Your task to perform on an android device: Open Chrome and go to settings Image 0: 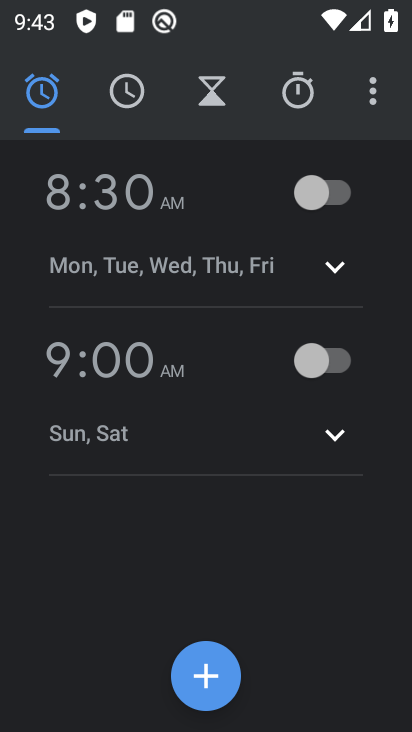
Step 0: press home button
Your task to perform on an android device: Open Chrome and go to settings Image 1: 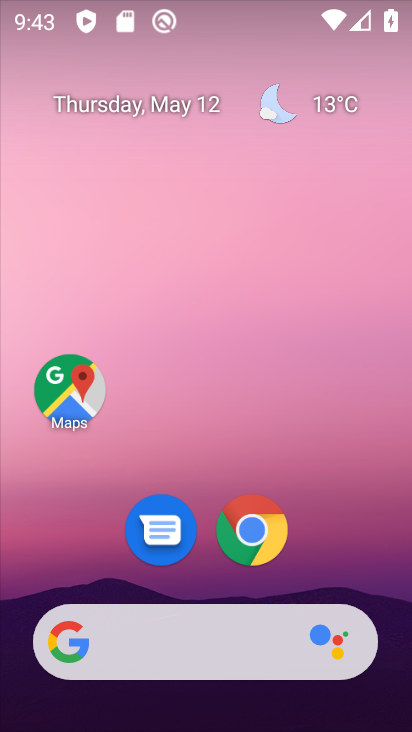
Step 1: drag from (312, 567) to (320, 106)
Your task to perform on an android device: Open Chrome and go to settings Image 2: 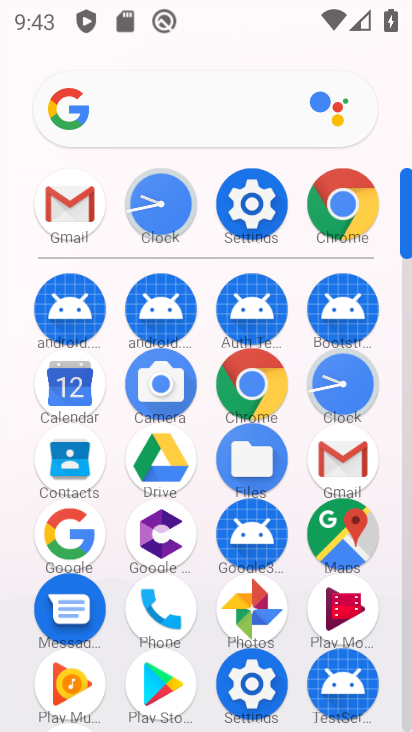
Step 2: click (338, 207)
Your task to perform on an android device: Open Chrome and go to settings Image 3: 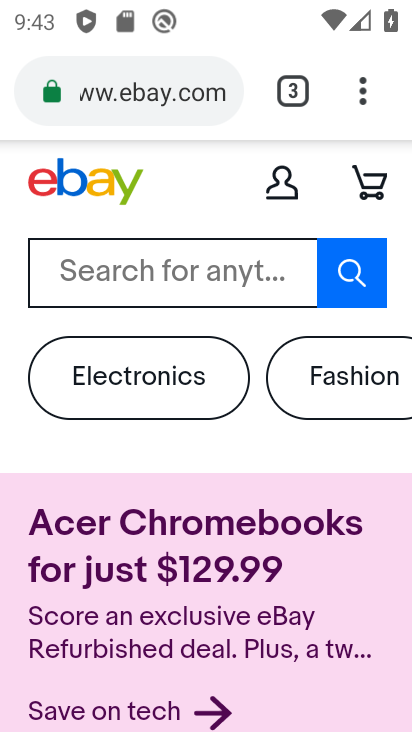
Step 3: click (377, 85)
Your task to perform on an android device: Open Chrome and go to settings Image 4: 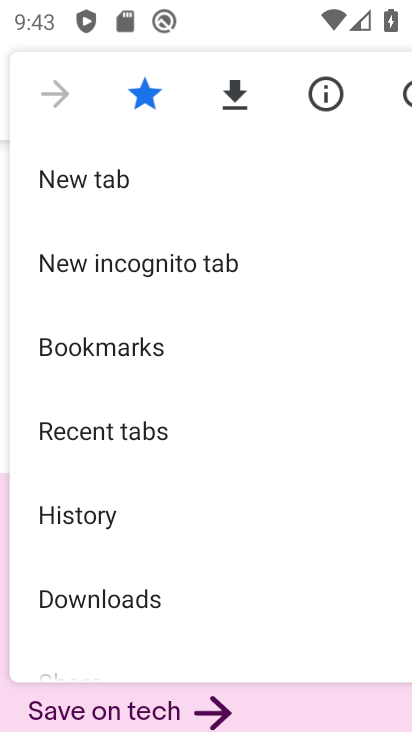
Step 4: drag from (169, 586) to (196, 231)
Your task to perform on an android device: Open Chrome and go to settings Image 5: 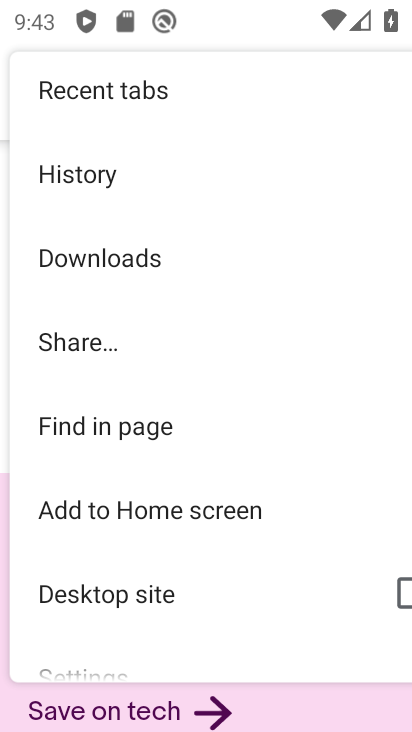
Step 5: drag from (214, 603) to (217, 269)
Your task to perform on an android device: Open Chrome and go to settings Image 6: 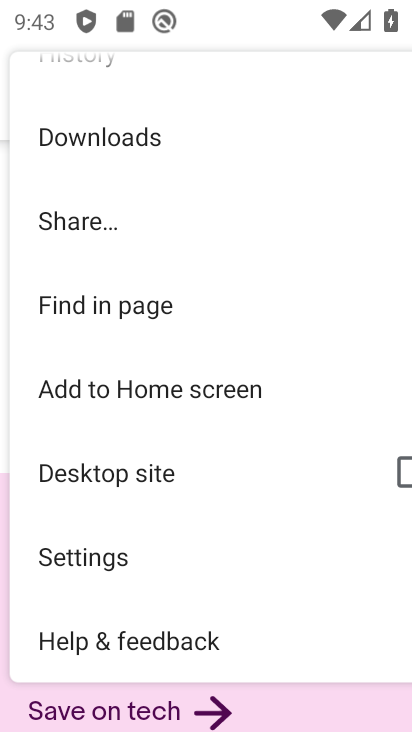
Step 6: click (110, 557)
Your task to perform on an android device: Open Chrome and go to settings Image 7: 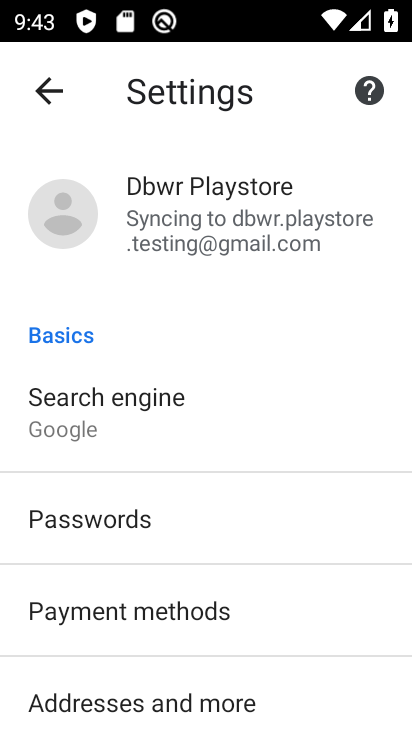
Step 7: task complete